Your task to perform on an android device: snooze an email in the gmail app Image 0: 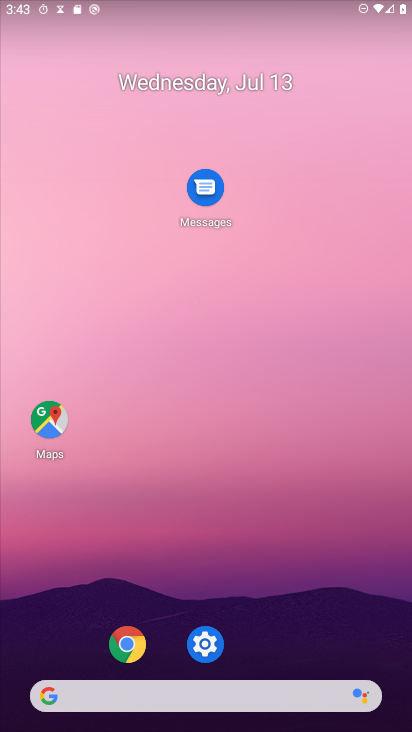
Step 0: drag from (26, 709) to (128, 80)
Your task to perform on an android device: snooze an email in the gmail app Image 1: 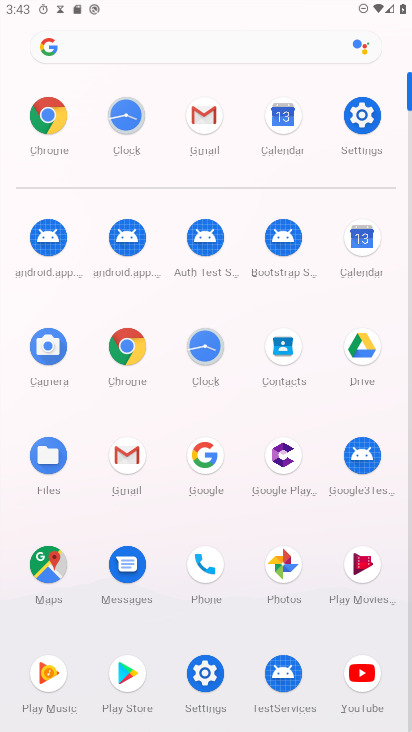
Step 1: click (138, 457)
Your task to perform on an android device: snooze an email in the gmail app Image 2: 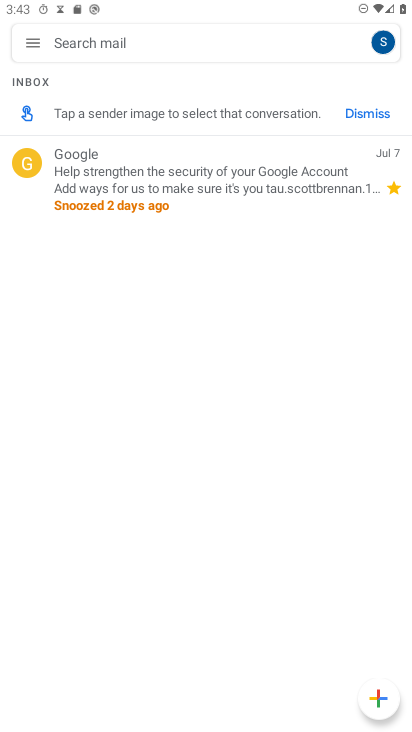
Step 2: click (18, 36)
Your task to perform on an android device: snooze an email in the gmail app Image 3: 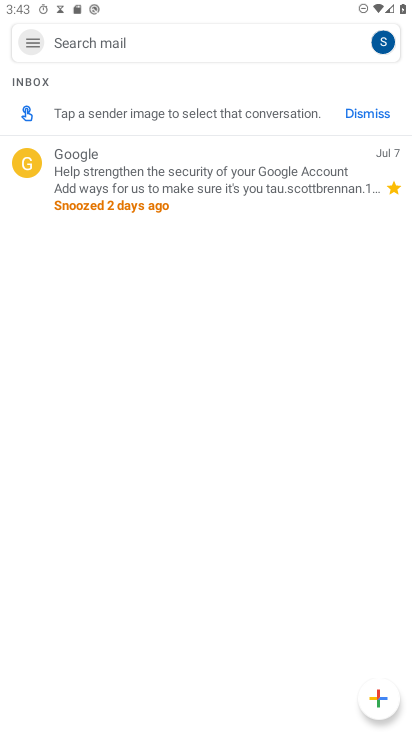
Step 3: click (25, 39)
Your task to perform on an android device: snooze an email in the gmail app Image 4: 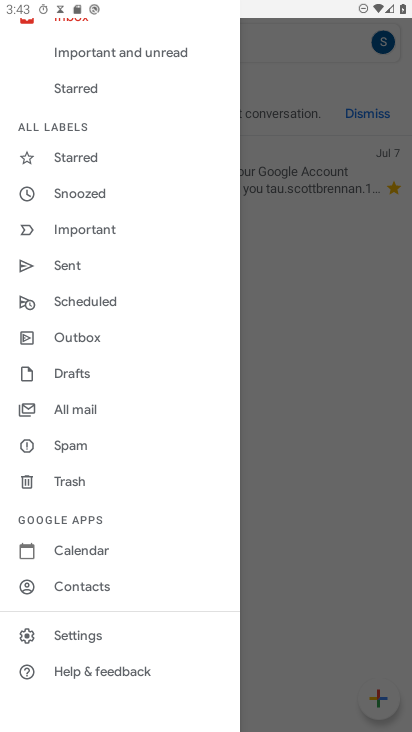
Step 4: click (84, 183)
Your task to perform on an android device: snooze an email in the gmail app Image 5: 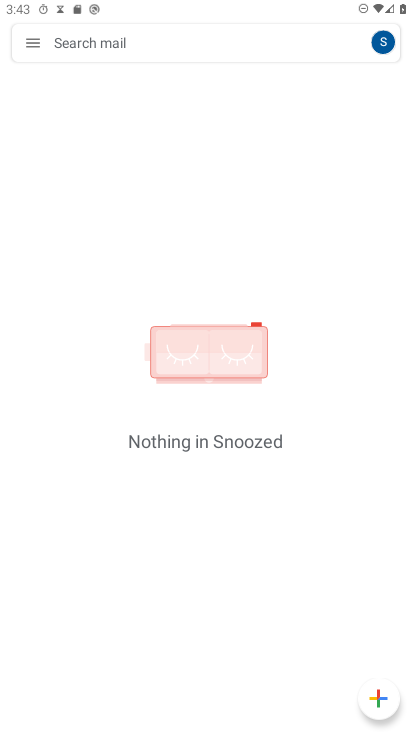
Step 5: task complete